Your task to perform on an android device: open wifi settings Image 0: 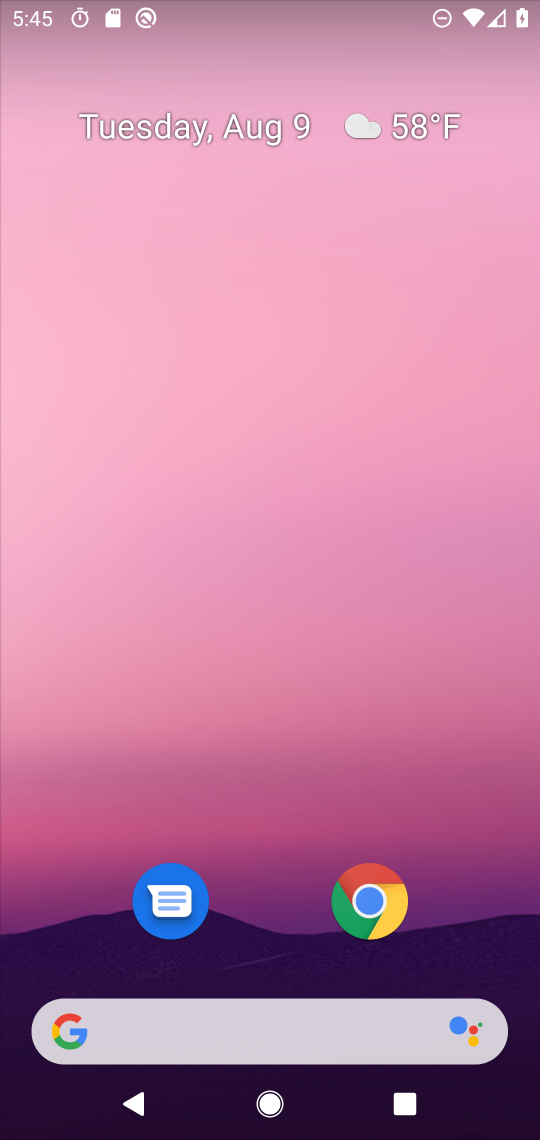
Step 0: drag from (244, 8) to (137, 632)
Your task to perform on an android device: open wifi settings Image 1: 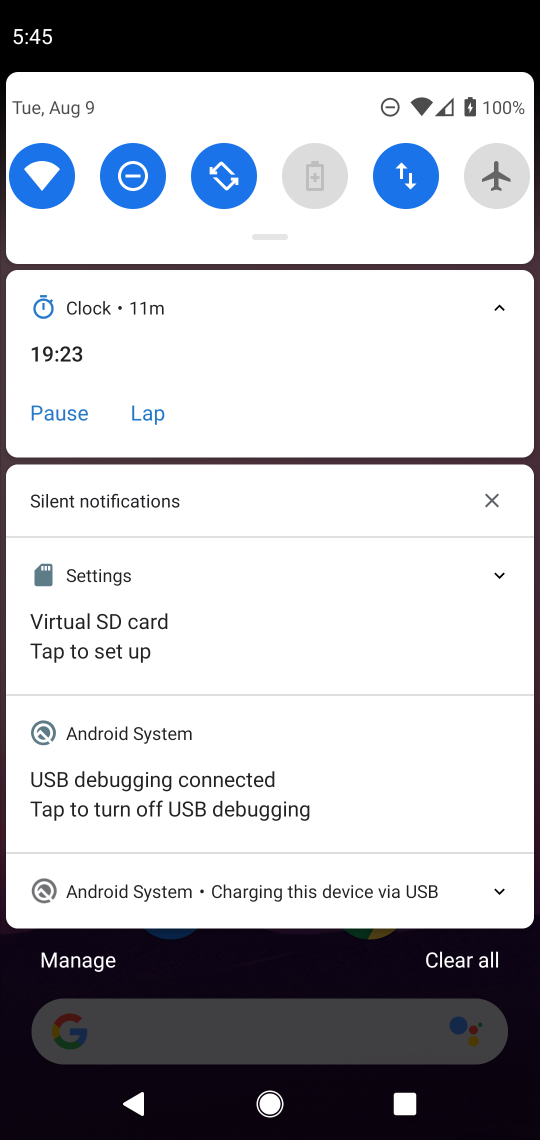
Step 1: click (52, 164)
Your task to perform on an android device: open wifi settings Image 2: 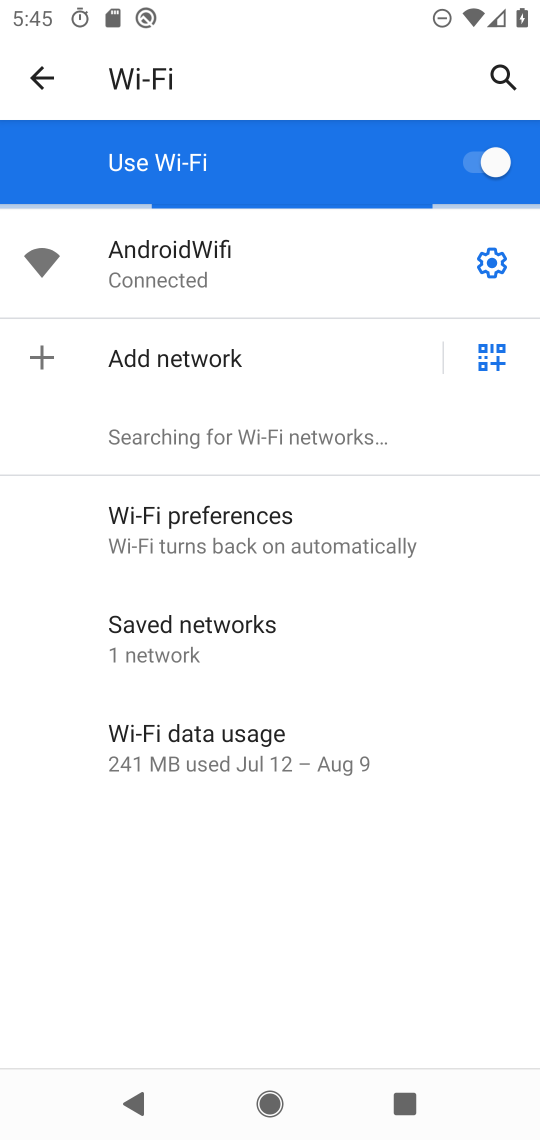
Step 2: task complete